Your task to perform on an android device: Search for the new nintendo switch on Walmart. Image 0: 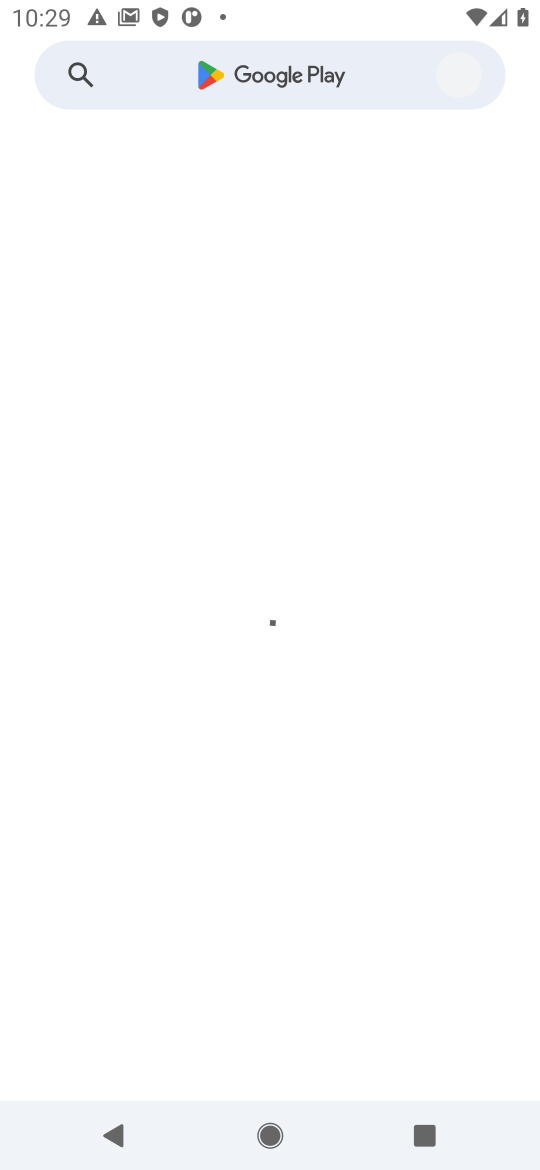
Step 0: press home button
Your task to perform on an android device: Search for the new nintendo switch on Walmart. Image 1: 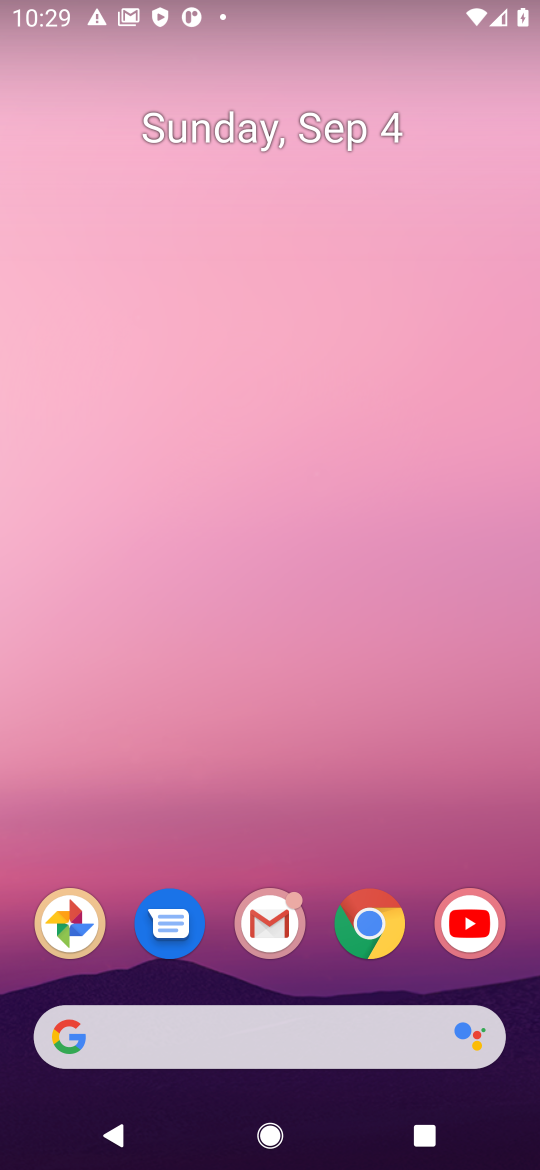
Step 1: click (352, 1040)
Your task to perform on an android device: Search for the new nintendo switch on Walmart. Image 2: 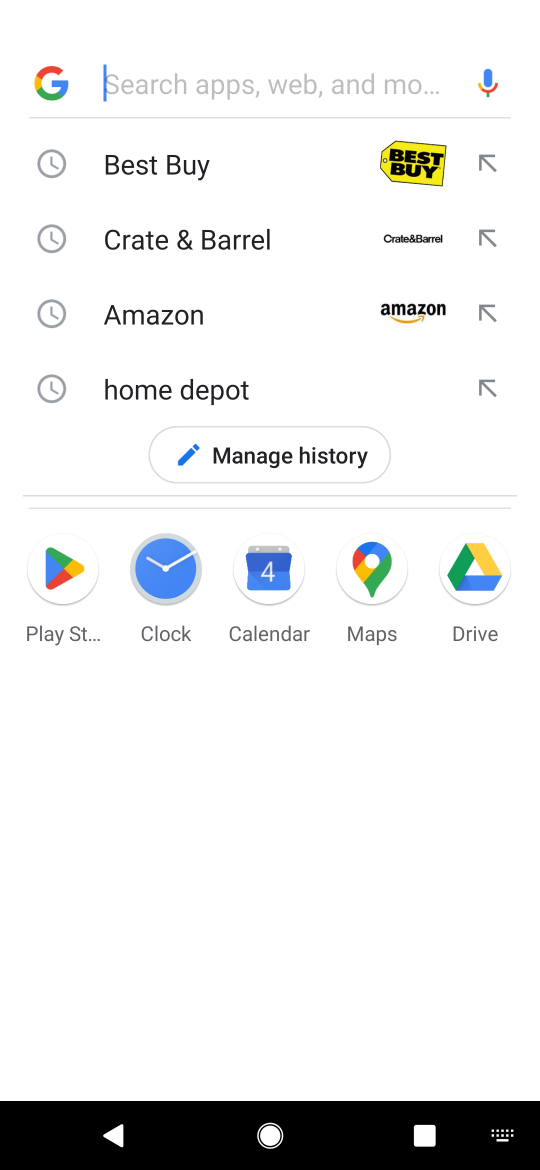
Step 2: press enter
Your task to perform on an android device: Search for the new nintendo switch on Walmart. Image 3: 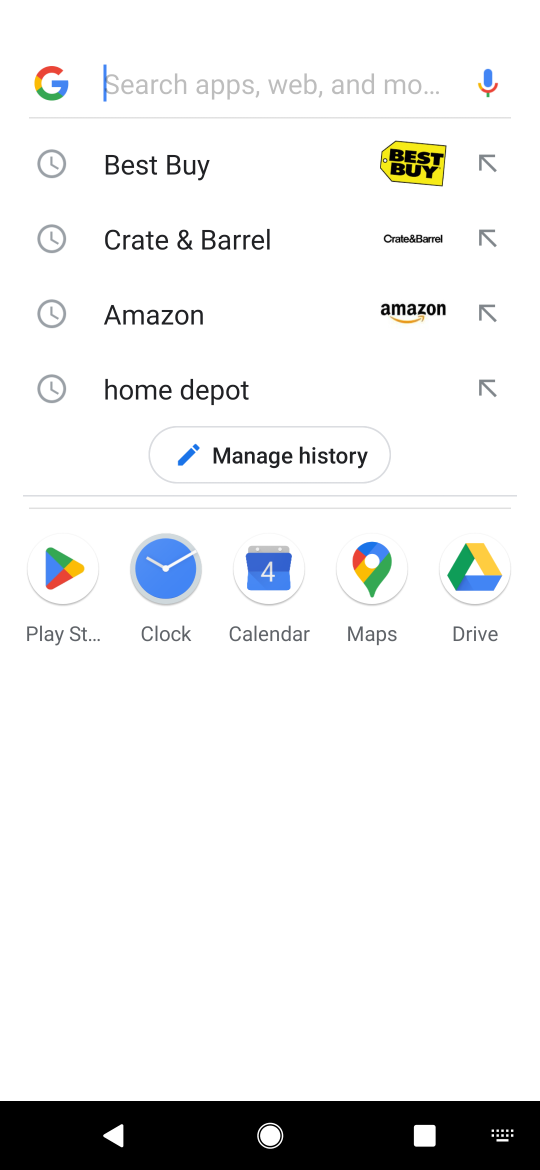
Step 3: type "walmart"
Your task to perform on an android device: Search for the new nintendo switch on Walmart. Image 4: 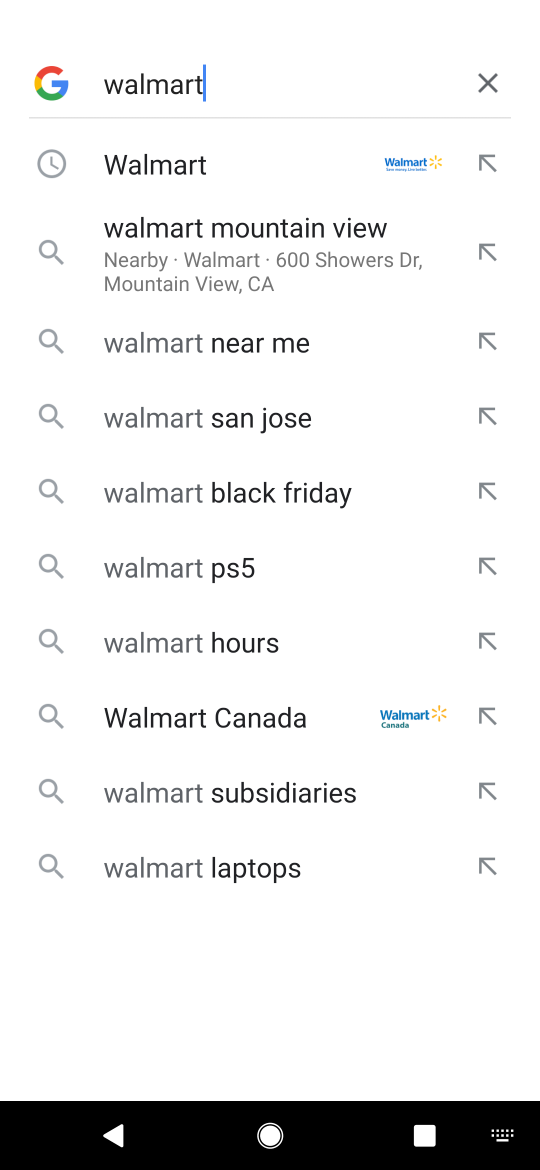
Step 4: click (194, 162)
Your task to perform on an android device: Search for the new nintendo switch on Walmart. Image 5: 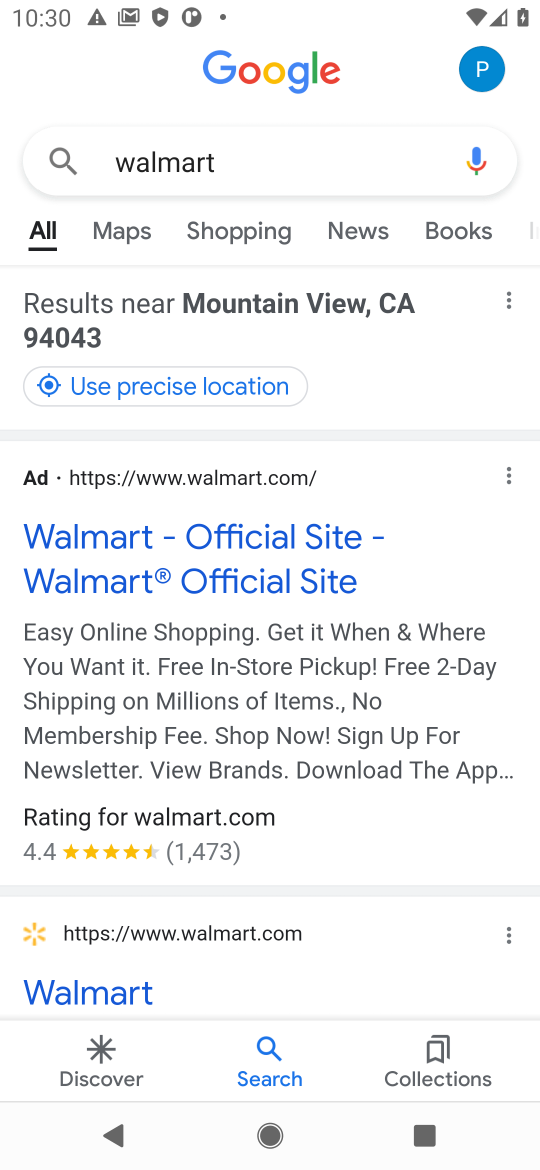
Step 5: click (234, 536)
Your task to perform on an android device: Search for the new nintendo switch on Walmart. Image 6: 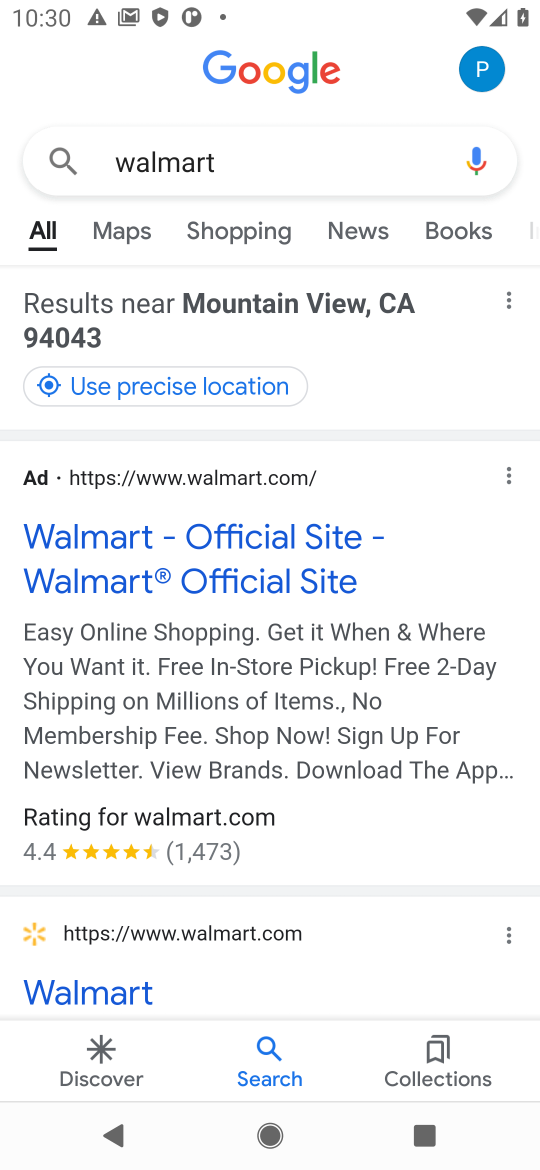
Step 6: click (285, 523)
Your task to perform on an android device: Search for the new nintendo switch on Walmart. Image 7: 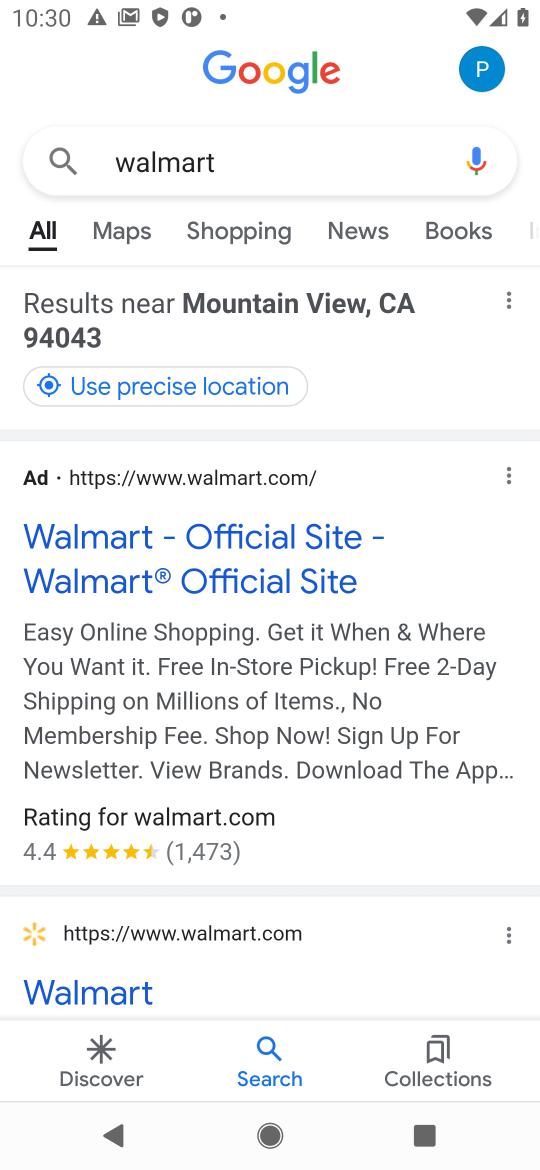
Step 7: click (238, 556)
Your task to perform on an android device: Search for the new nintendo switch on Walmart. Image 8: 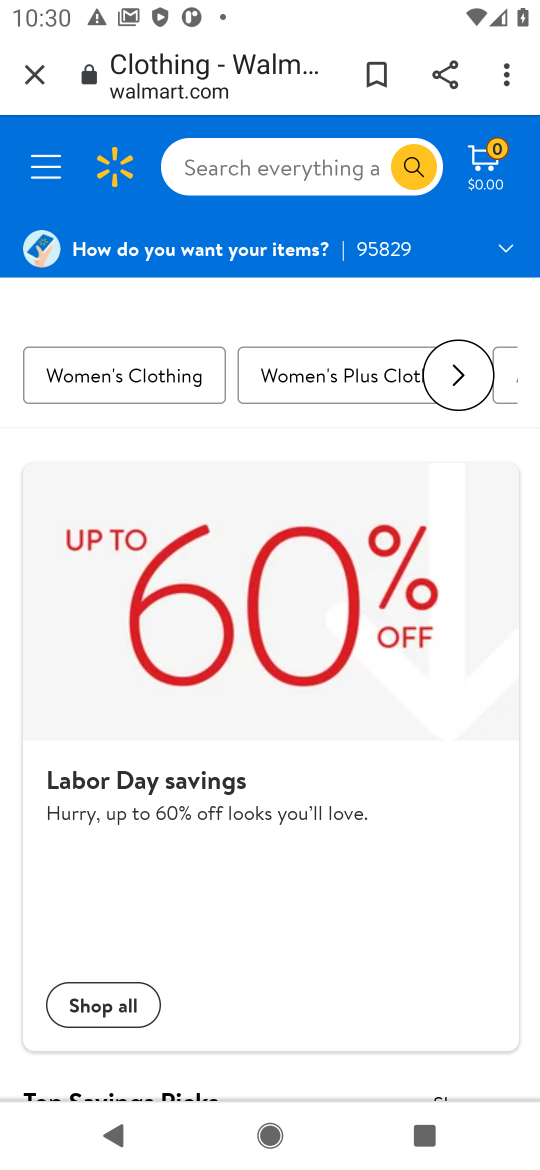
Step 8: click (265, 167)
Your task to perform on an android device: Search for the new nintendo switch on Walmart. Image 9: 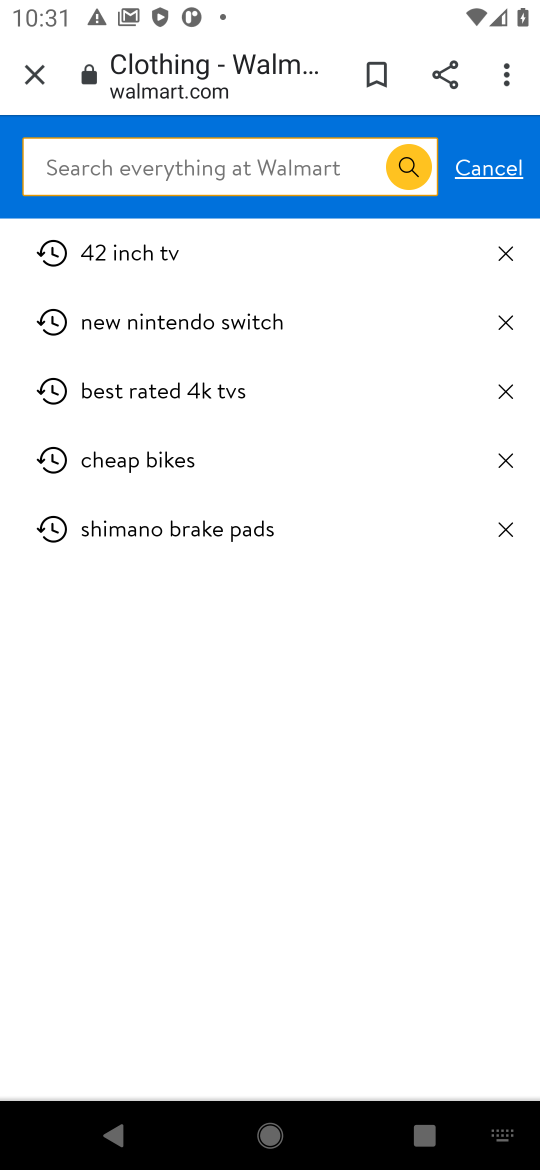
Step 9: click (153, 156)
Your task to perform on an android device: Search for the new nintendo switch on Walmart. Image 10: 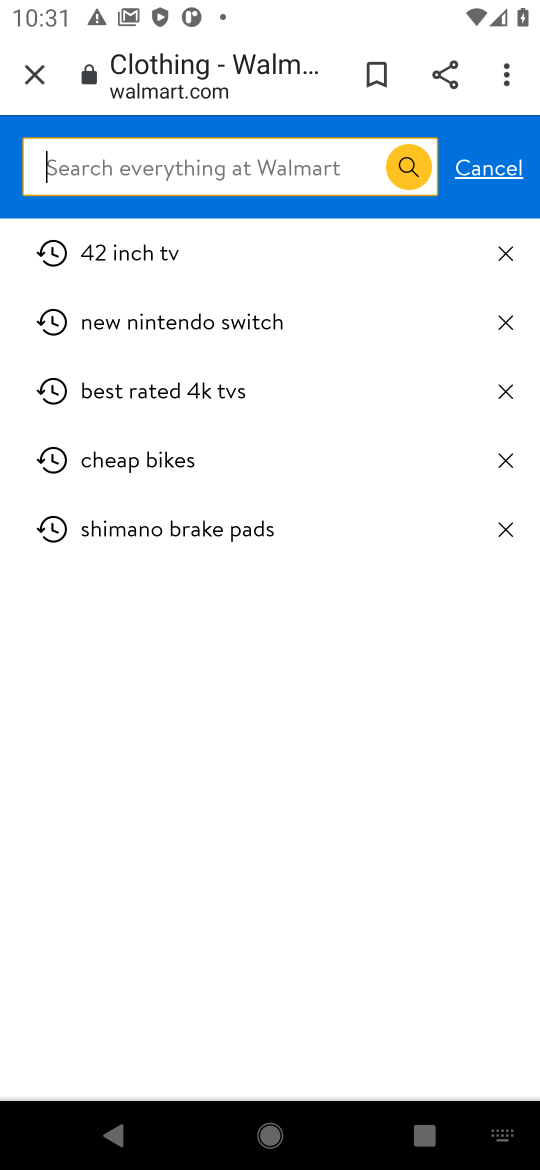
Step 10: type "nintendo switch"
Your task to perform on an android device: Search for the new nintendo switch on Walmart. Image 11: 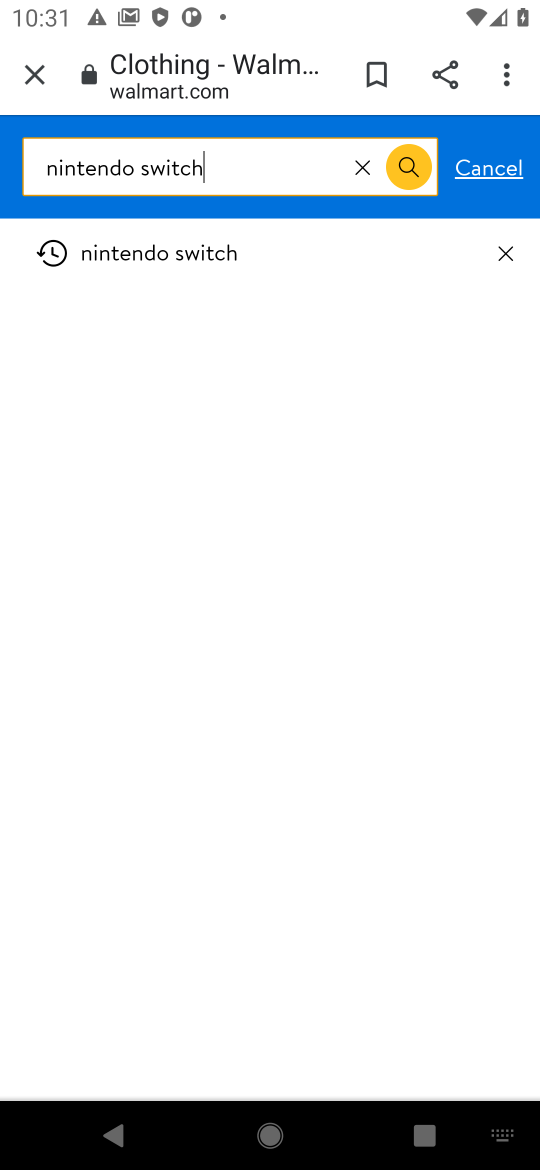
Step 11: press enter
Your task to perform on an android device: Search for the new nintendo switch on Walmart. Image 12: 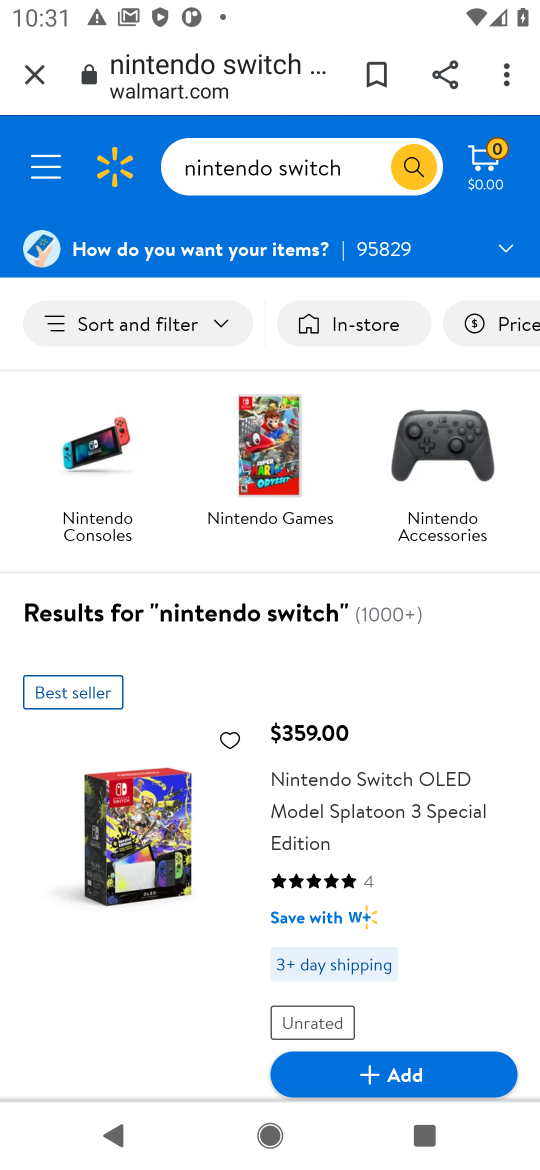
Step 12: task complete